Your task to perform on an android device: Open Google Maps Image 0: 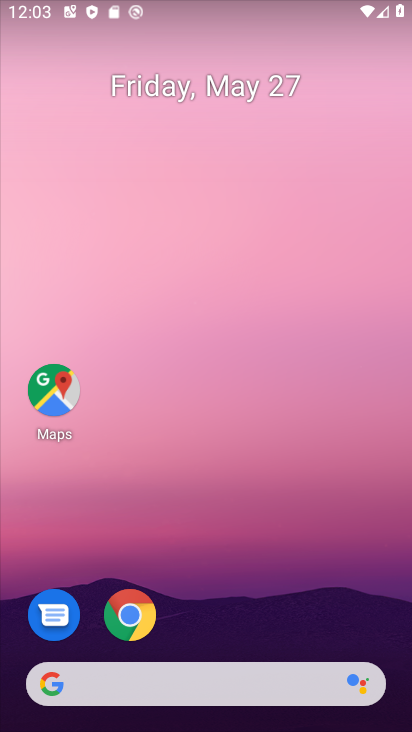
Step 0: drag from (334, 662) to (326, 136)
Your task to perform on an android device: Open Google Maps Image 1: 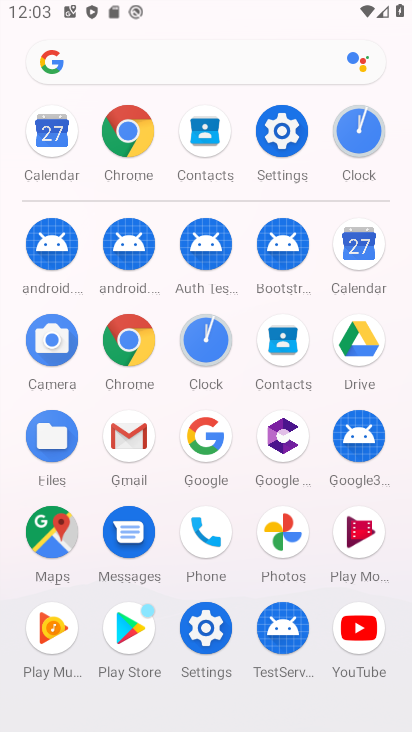
Step 1: click (150, 339)
Your task to perform on an android device: Open Google Maps Image 2: 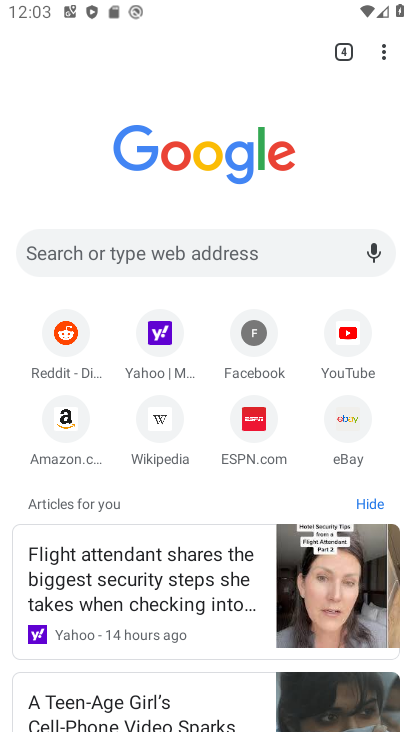
Step 2: press home button
Your task to perform on an android device: Open Google Maps Image 3: 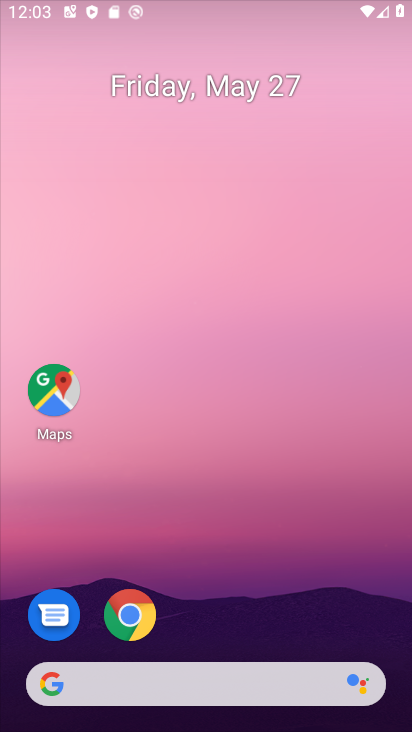
Step 3: drag from (248, 676) to (277, 184)
Your task to perform on an android device: Open Google Maps Image 4: 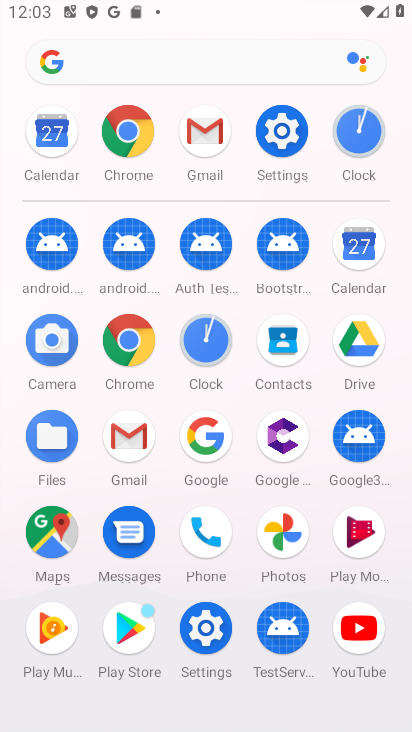
Step 4: click (48, 539)
Your task to perform on an android device: Open Google Maps Image 5: 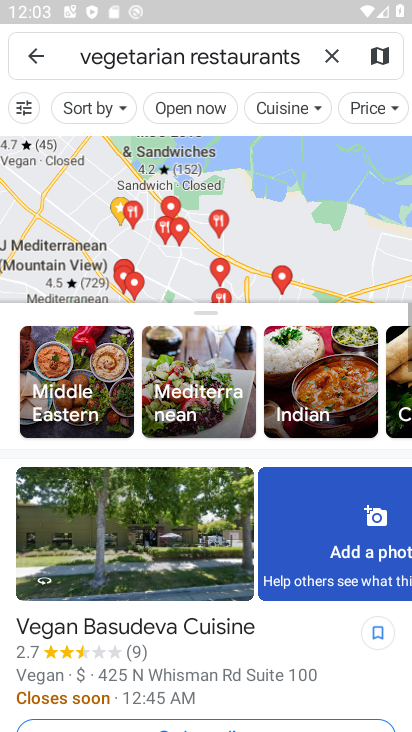
Step 5: task complete